Your task to perform on an android device: snooze an email in the gmail app Image 0: 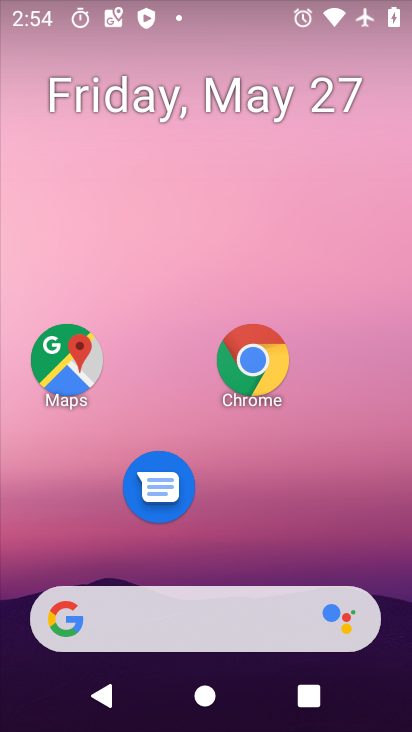
Step 0: drag from (248, 525) to (262, 50)
Your task to perform on an android device: snooze an email in the gmail app Image 1: 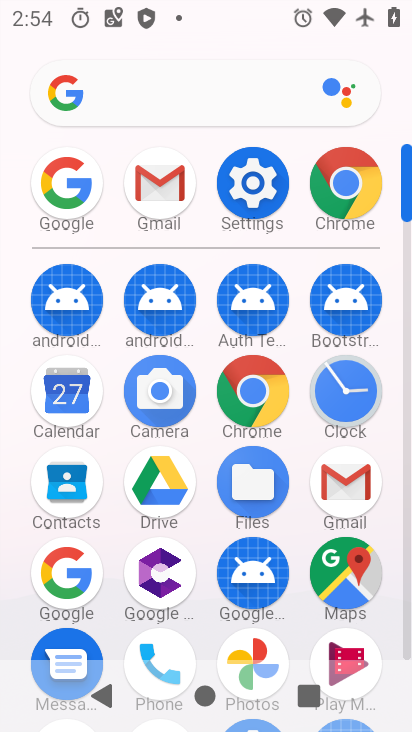
Step 1: click (344, 488)
Your task to perform on an android device: snooze an email in the gmail app Image 2: 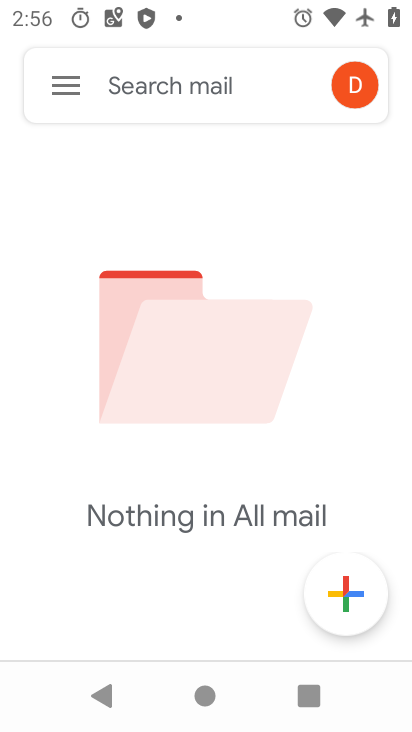
Step 2: task complete